Your task to perform on an android device: see creations saved in the google photos Image 0: 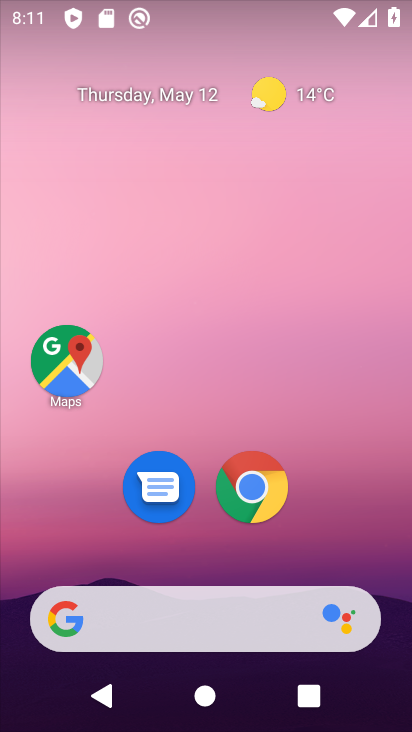
Step 0: drag from (350, 524) to (359, 6)
Your task to perform on an android device: see creations saved in the google photos Image 1: 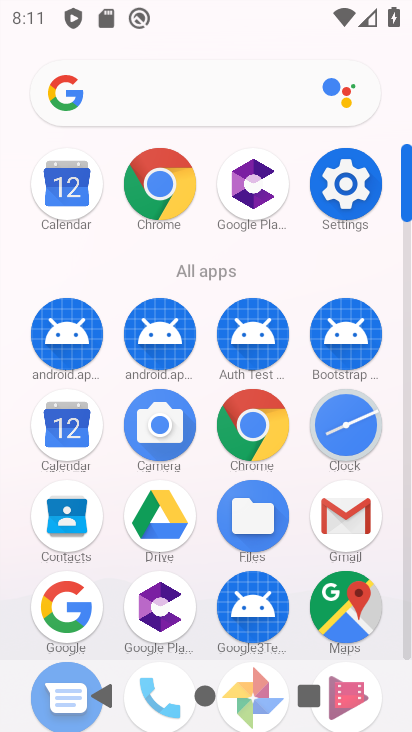
Step 1: click (402, 537)
Your task to perform on an android device: see creations saved in the google photos Image 2: 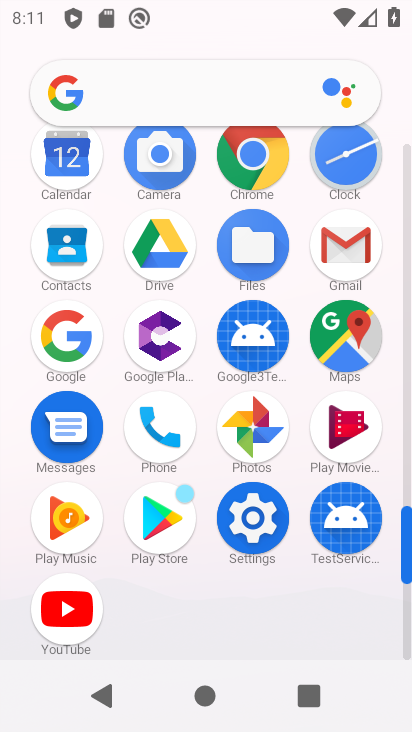
Step 2: click (248, 433)
Your task to perform on an android device: see creations saved in the google photos Image 3: 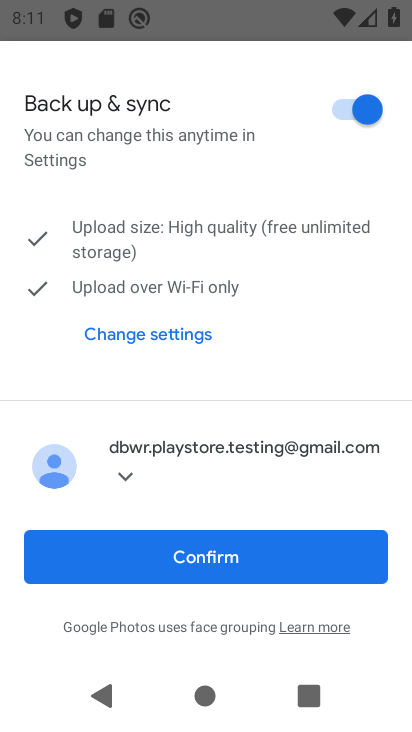
Step 3: click (201, 543)
Your task to perform on an android device: see creations saved in the google photos Image 4: 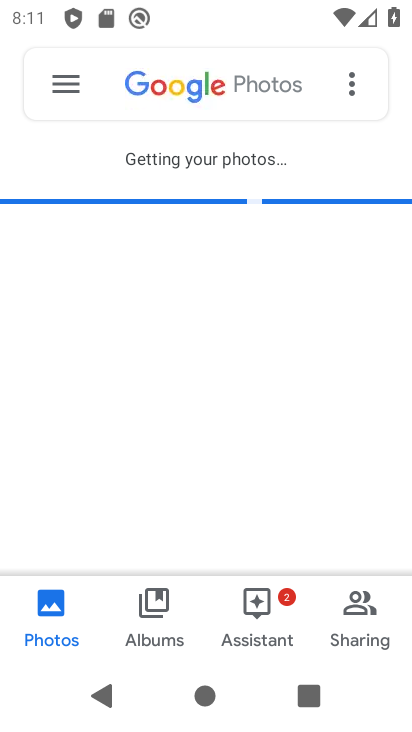
Step 4: click (176, 88)
Your task to perform on an android device: see creations saved in the google photos Image 5: 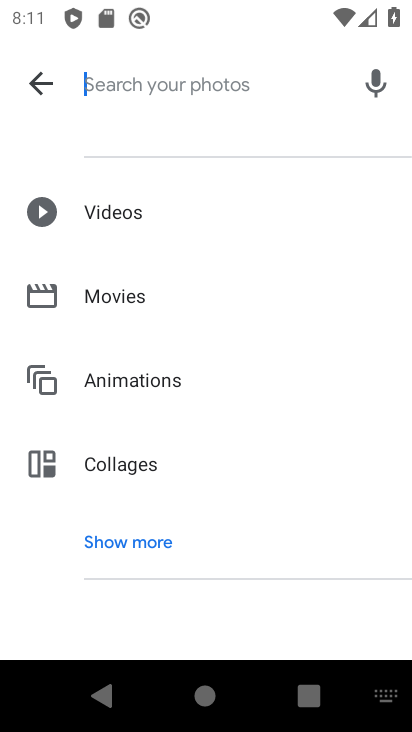
Step 5: click (121, 543)
Your task to perform on an android device: see creations saved in the google photos Image 6: 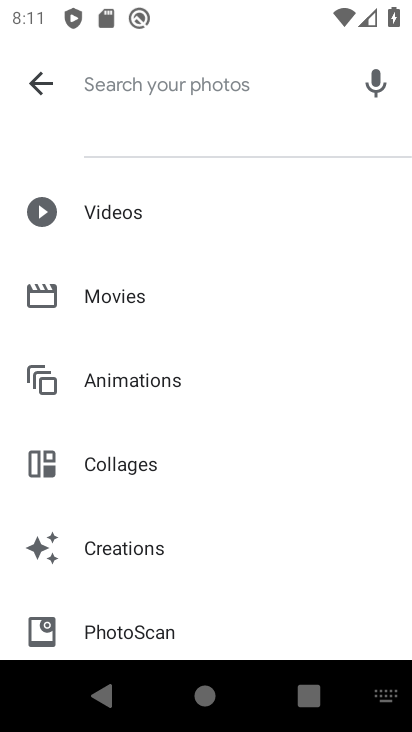
Step 6: click (121, 550)
Your task to perform on an android device: see creations saved in the google photos Image 7: 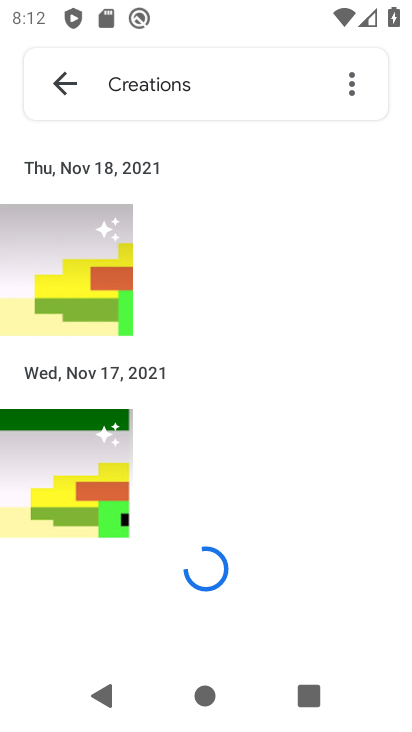
Step 7: task complete